Your task to perform on an android device: Go to Maps Image 0: 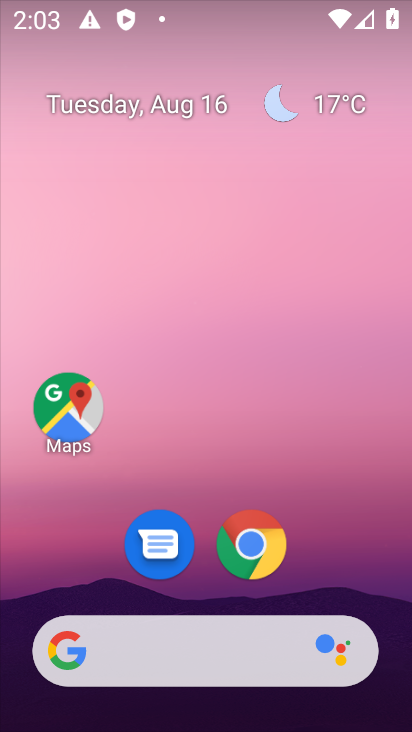
Step 0: click (66, 414)
Your task to perform on an android device: Go to Maps Image 1: 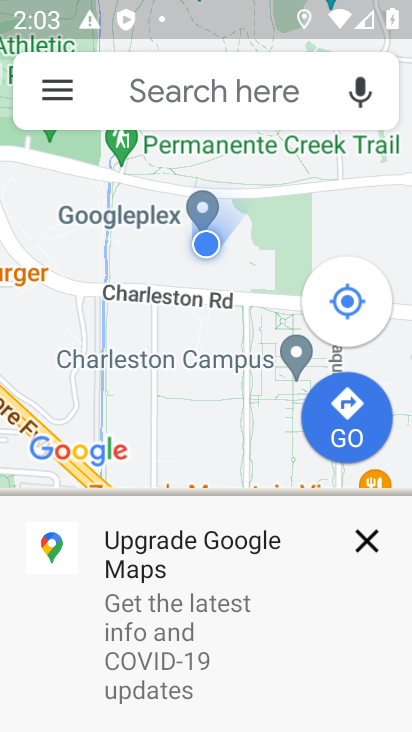
Step 1: task complete